Your task to perform on an android device: Open location settings Image 0: 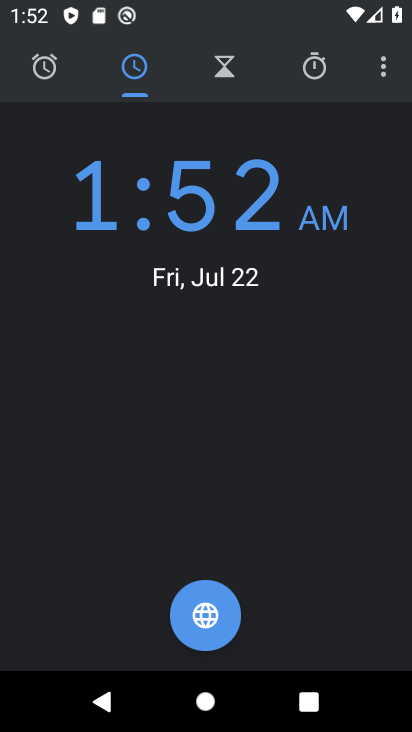
Step 0: press home button
Your task to perform on an android device: Open location settings Image 1: 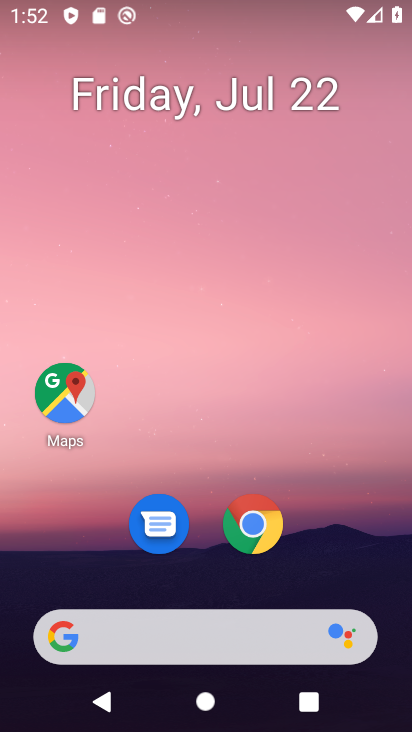
Step 1: drag from (203, 629) to (163, 18)
Your task to perform on an android device: Open location settings Image 2: 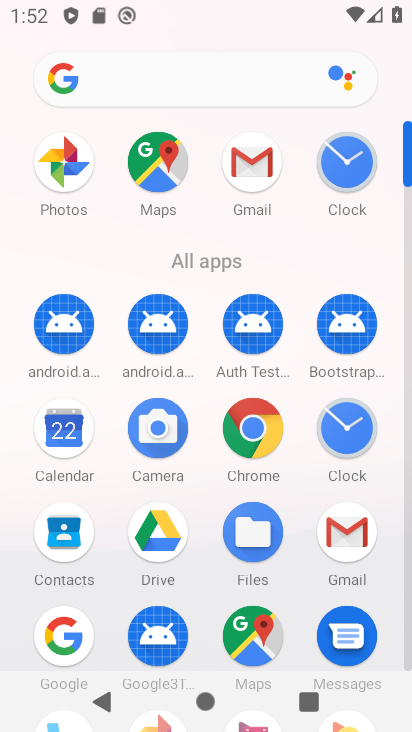
Step 2: drag from (116, 572) to (102, 38)
Your task to perform on an android device: Open location settings Image 3: 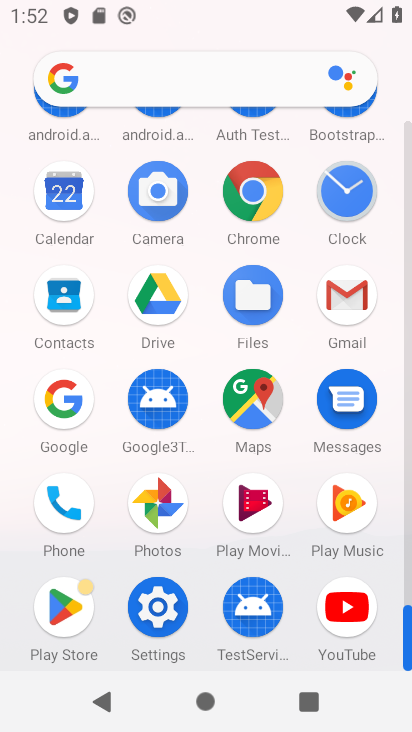
Step 3: click (143, 628)
Your task to perform on an android device: Open location settings Image 4: 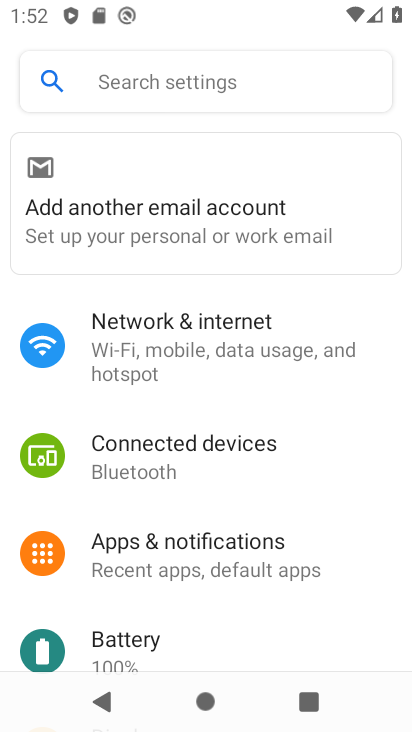
Step 4: drag from (195, 586) to (165, 77)
Your task to perform on an android device: Open location settings Image 5: 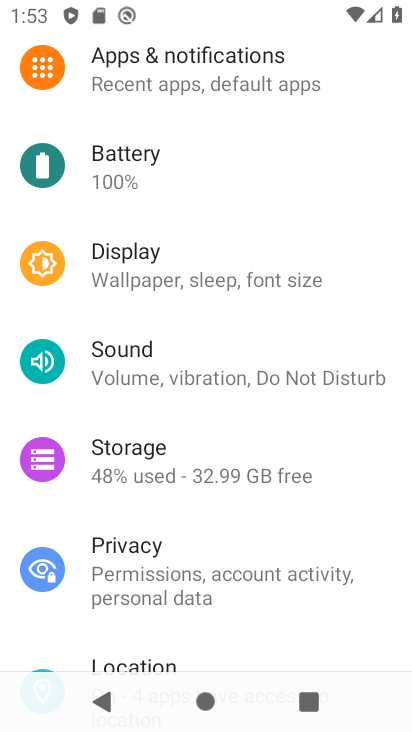
Step 5: drag from (142, 501) to (120, 110)
Your task to perform on an android device: Open location settings Image 6: 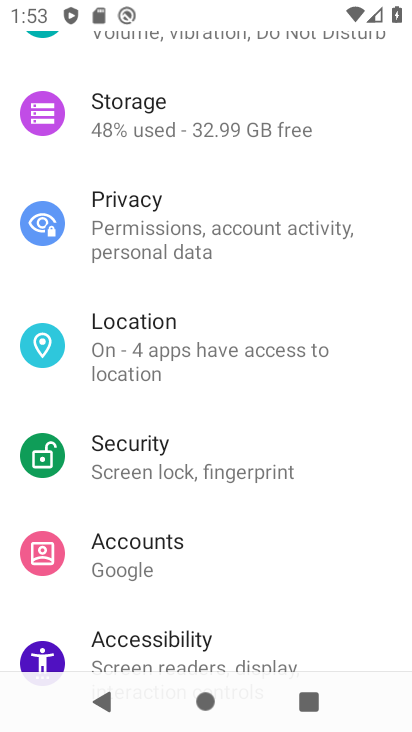
Step 6: click (133, 344)
Your task to perform on an android device: Open location settings Image 7: 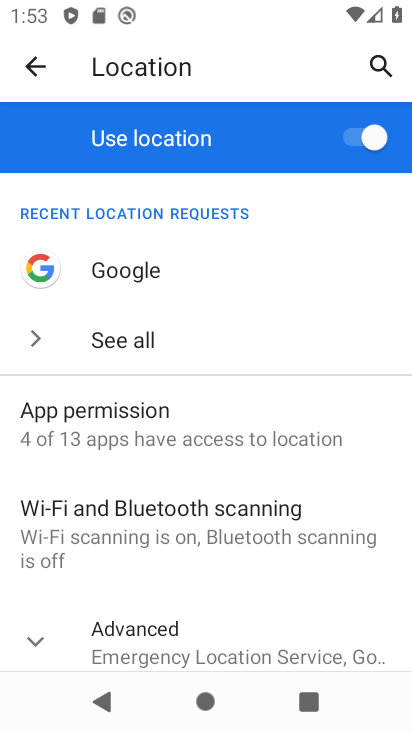
Step 7: task complete